Your task to perform on an android device: Is it going to rain today? Image 0: 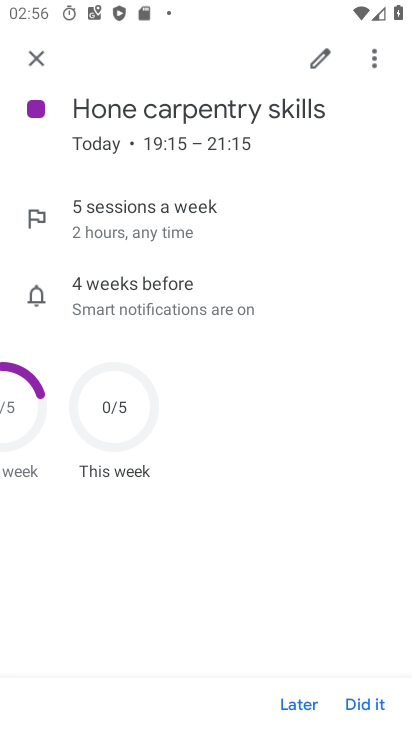
Step 0: press home button
Your task to perform on an android device: Is it going to rain today? Image 1: 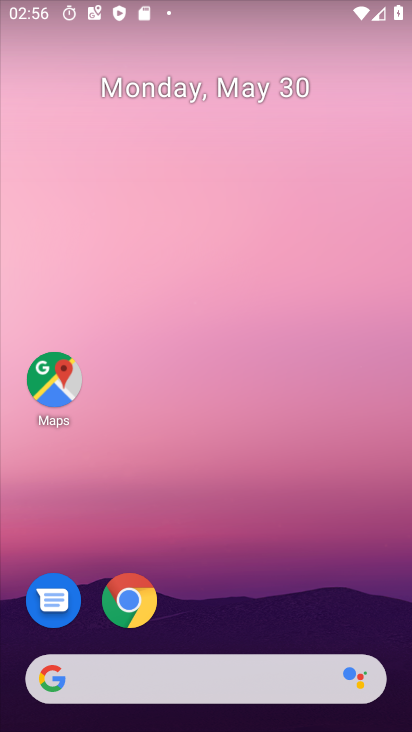
Step 1: click (217, 668)
Your task to perform on an android device: Is it going to rain today? Image 2: 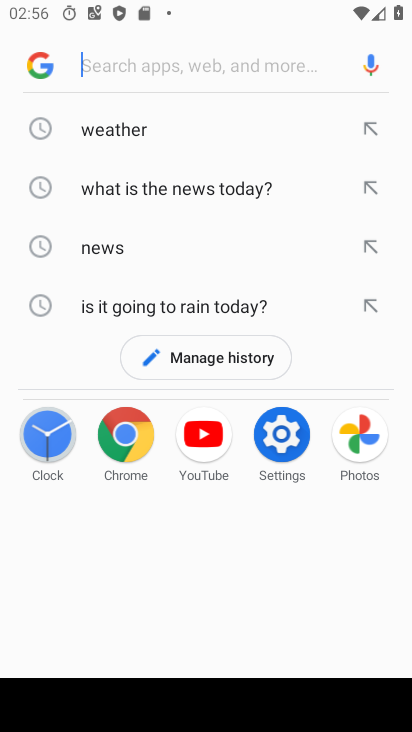
Step 2: click (149, 124)
Your task to perform on an android device: Is it going to rain today? Image 3: 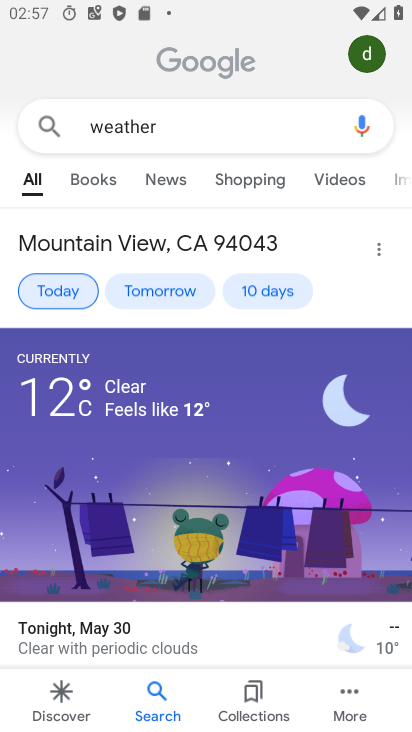
Step 3: click (255, 289)
Your task to perform on an android device: Is it going to rain today? Image 4: 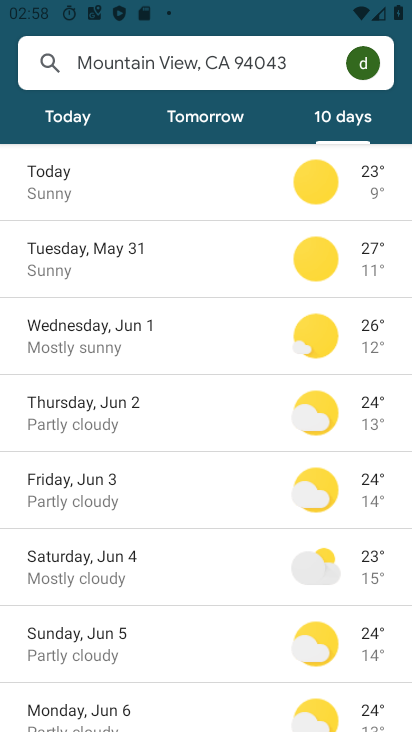
Step 4: task complete